Your task to perform on an android device: turn on wifi Image 0: 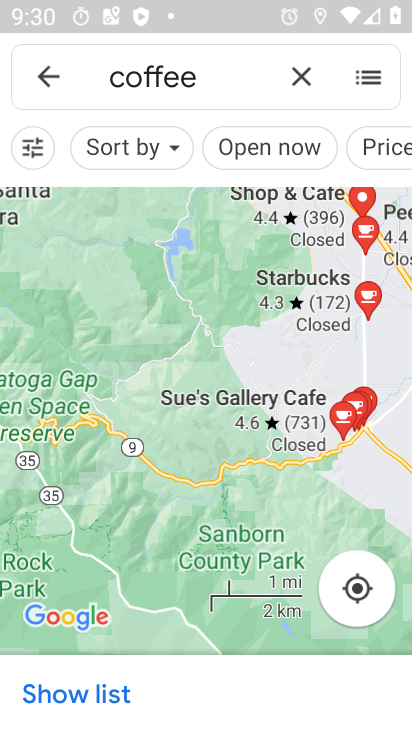
Step 0: press back button
Your task to perform on an android device: turn on wifi Image 1: 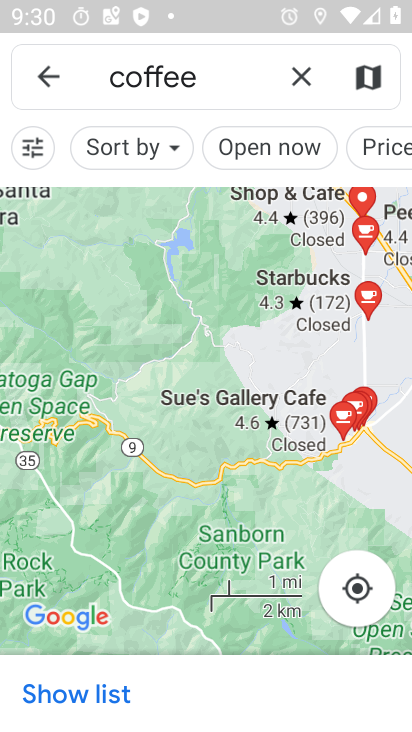
Step 1: press back button
Your task to perform on an android device: turn on wifi Image 2: 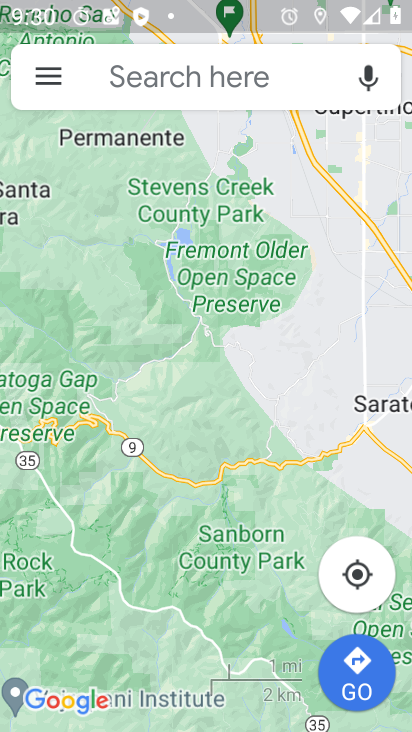
Step 2: press home button
Your task to perform on an android device: turn on wifi Image 3: 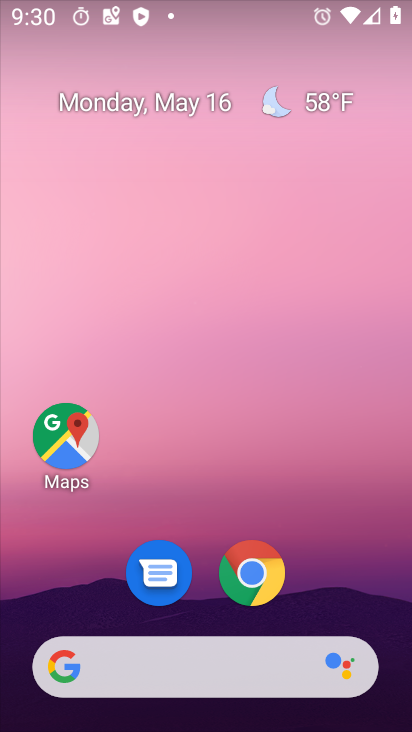
Step 3: drag from (347, 611) to (185, 99)
Your task to perform on an android device: turn on wifi Image 4: 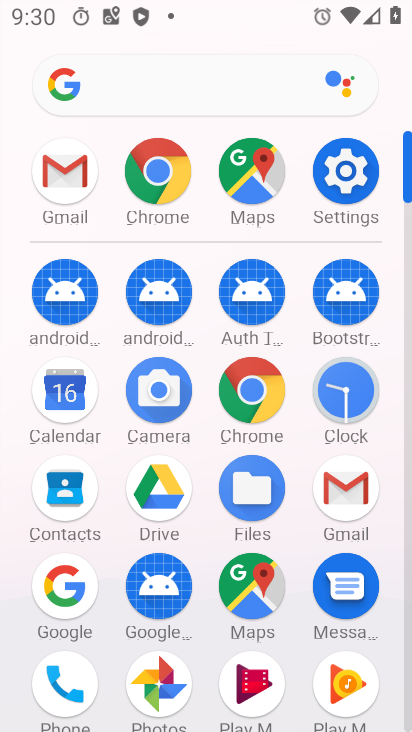
Step 4: click (348, 183)
Your task to perform on an android device: turn on wifi Image 5: 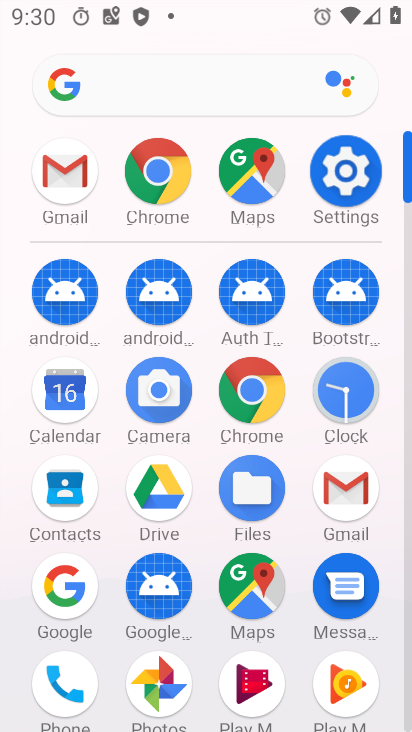
Step 5: click (357, 173)
Your task to perform on an android device: turn on wifi Image 6: 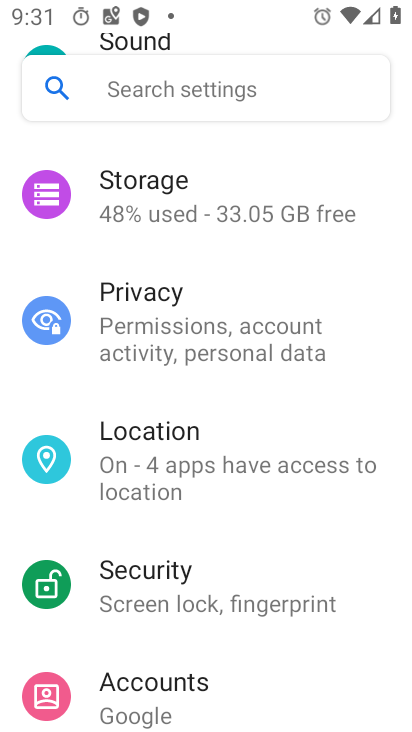
Step 6: drag from (187, 254) to (286, 627)
Your task to perform on an android device: turn on wifi Image 7: 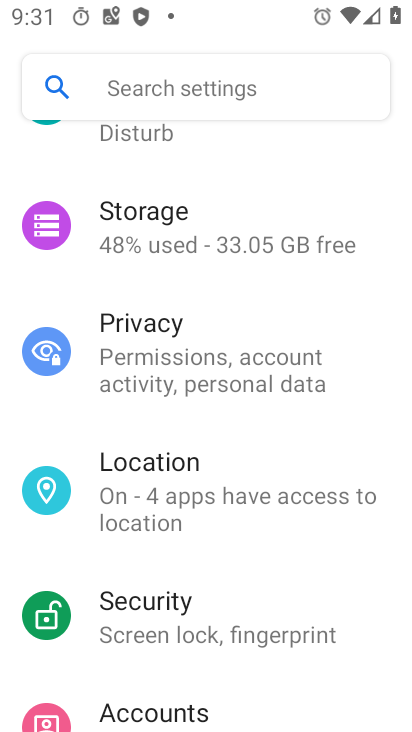
Step 7: drag from (189, 245) to (230, 516)
Your task to perform on an android device: turn on wifi Image 8: 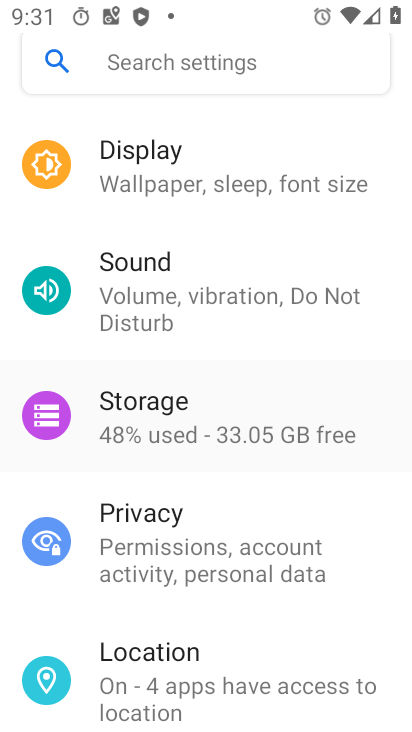
Step 8: drag from (158, 245) to (223, 570)
Your task to perform on an android device: turn on wifi Image 9: 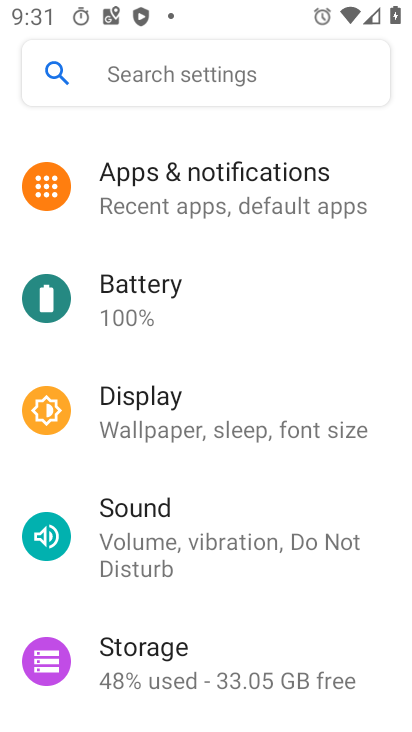
Step 9: drag from (174, 197) to (220, 561)
Your task to perform on an android device: turn on wifi Image 10: 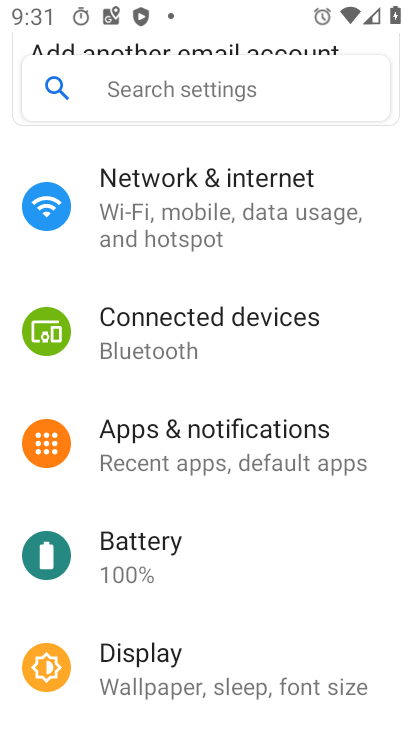
Step 10: click (231, 192)
Your task to perform on an android device: turn on wifi Image 11: 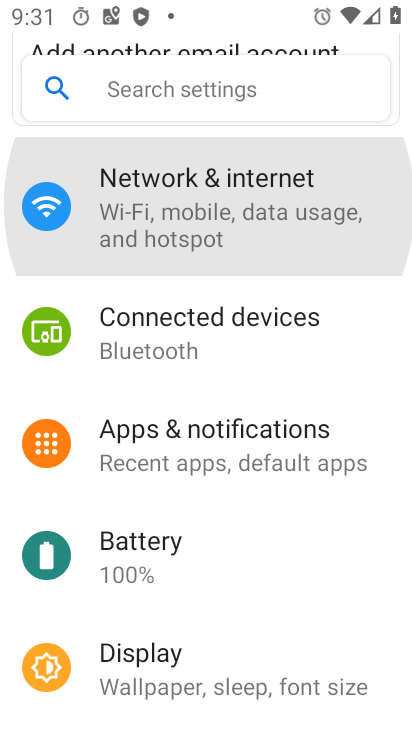
Step 11: click (231, 192)
Your task to perform on an android device: turn on wifi Image 12: 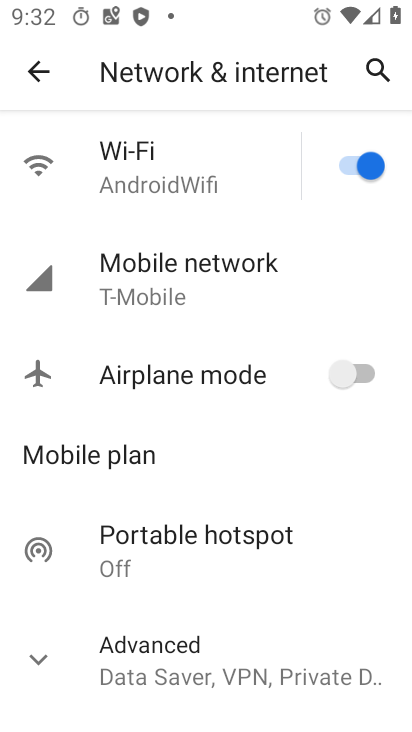
Step 12: task complete